Your task to perform on an android device: toggle show notifications on the lock screen Image 0: 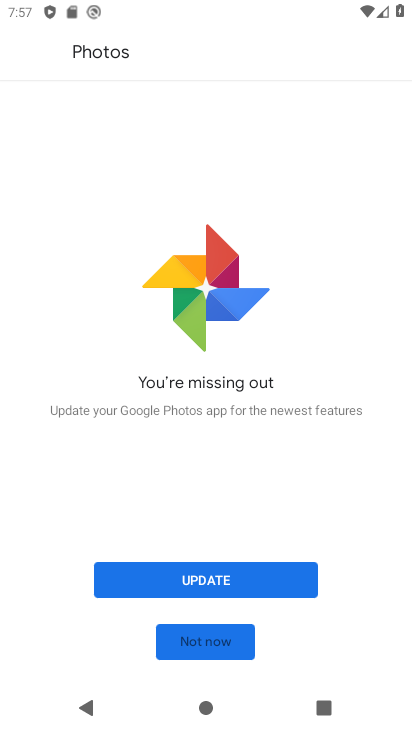
Step 0: press back button
Your task to perform on an android device: toggle show notifications on the lock screen Image 1: 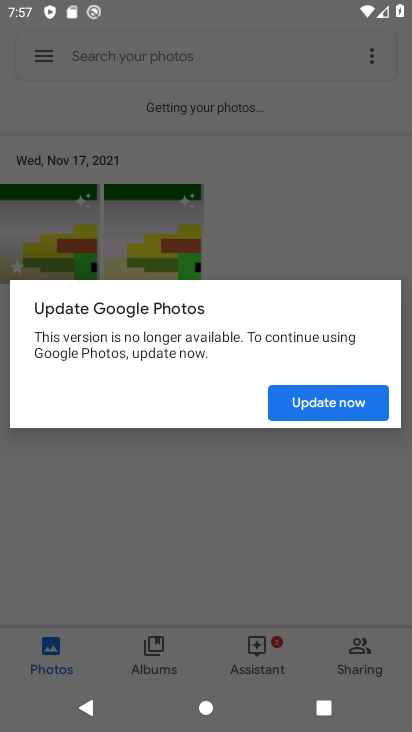
Step 1: press home button
Your task to perform on an android device: toggle show notifications on the lock screen Image 2: 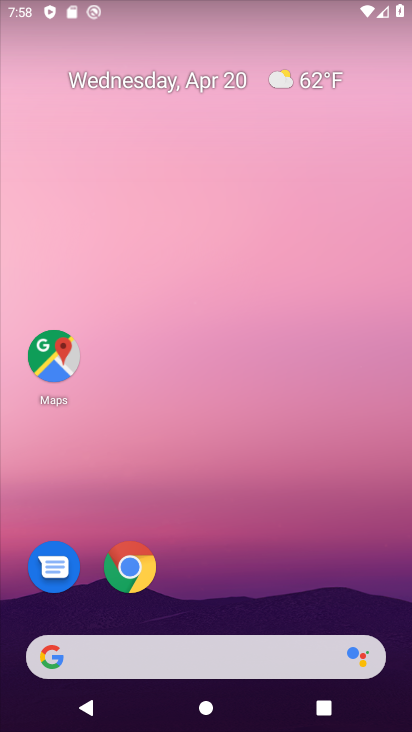
Step 2: drag from (228, 664) to (170, 118)
Your task to perform on an android device: toggle show notifications on the lock screen Image 3: 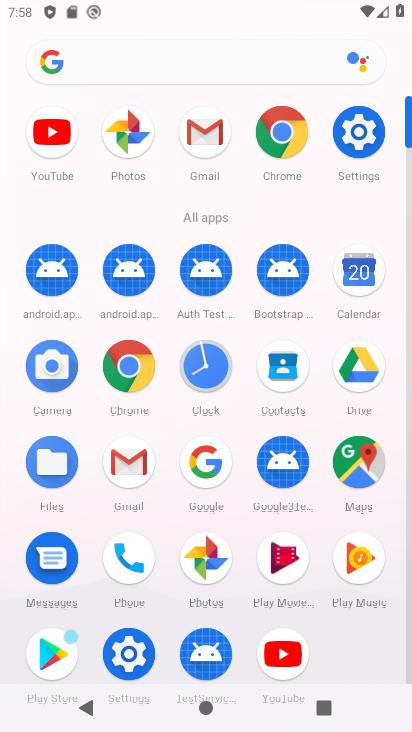
Step 3: click (141, 645)
Your task to perform on an android device: toggle show notifications on the lock screen Image 4: 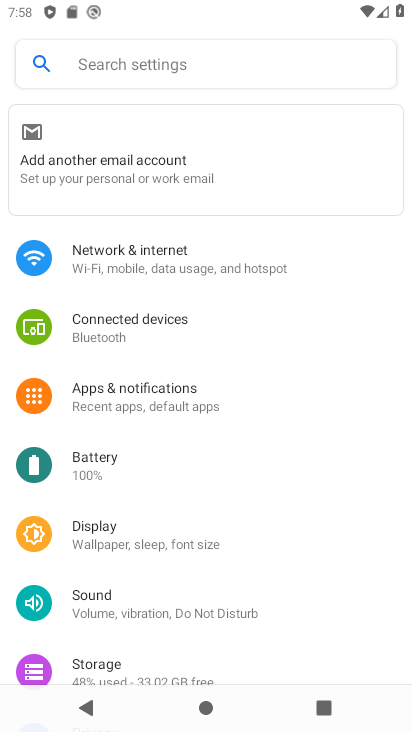
Step 4: click (121, 416)
Your task to perform on an android device: toggle show notifications on the lock screen Image 5: 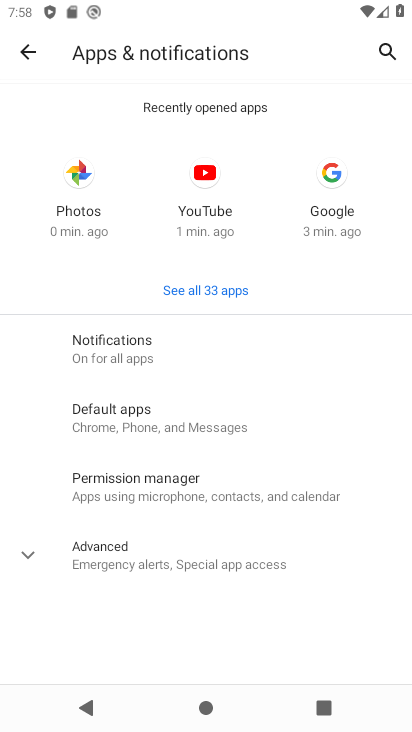
Step 5: click (146, 361)
Your task to perform on an android device: toggle show notifications on the lock screen Image 6: 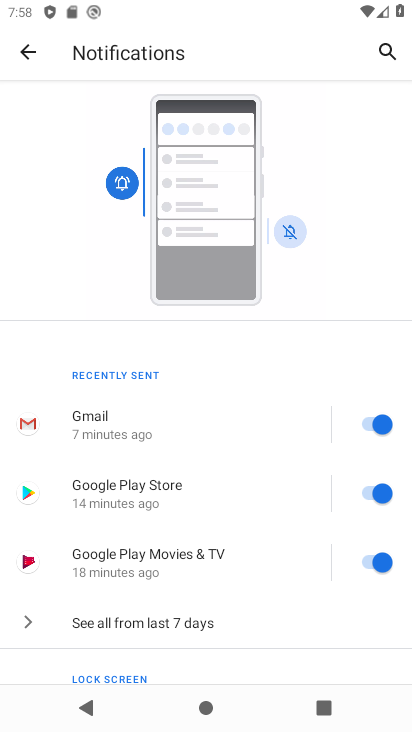
Step 6: drag from (167, 621) to (147, 274)
Your task to perform on an android device: toggle show notifications on the lock screen Image 7: 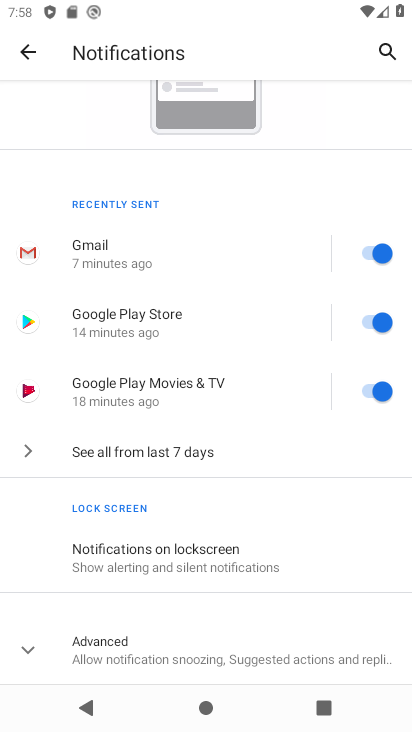
Step 7: click (241, 546)
Your task to perform on an android device: toggle show notifications on the lock screen Image 8: 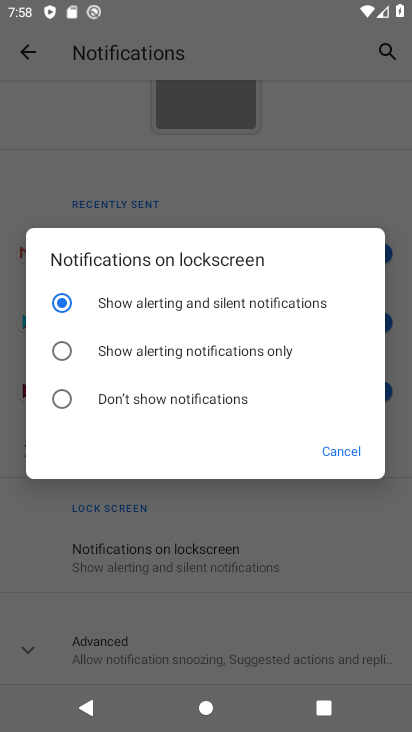
Step 8: click (240, 303)
Your task to perform on an android device: toggle show notifications on the lock screen Image 9: 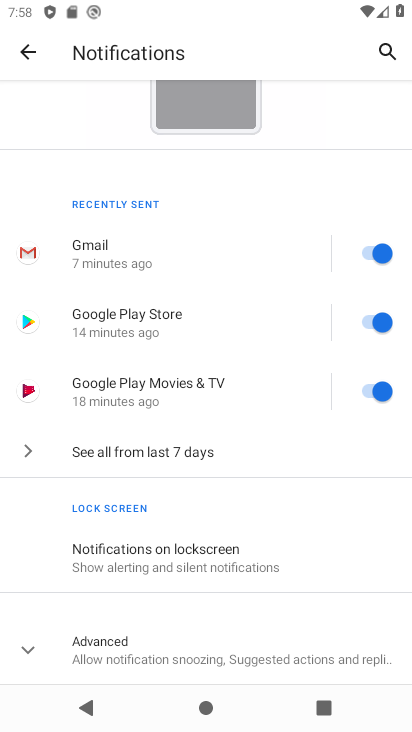
Step 9: task complete